Your task to perform on an android device: Open settings Image 0: 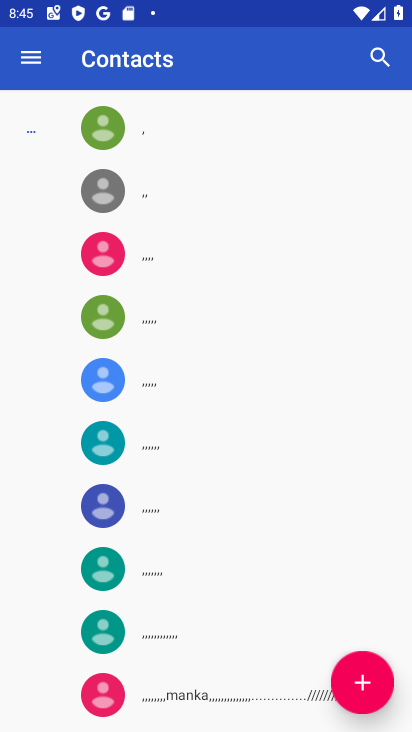
Step 0: press home button
Your task to perform on an android device: Open settings Image 1: 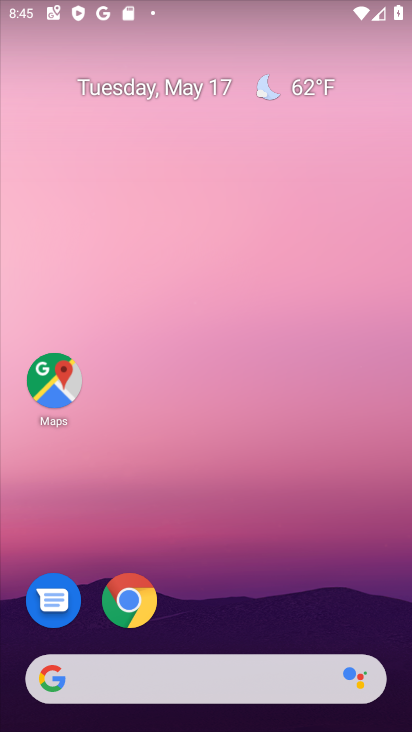
Step 1: drag from (217, 724) to (191, 152)
Your task to perform on an android device: Open settings Image 2: 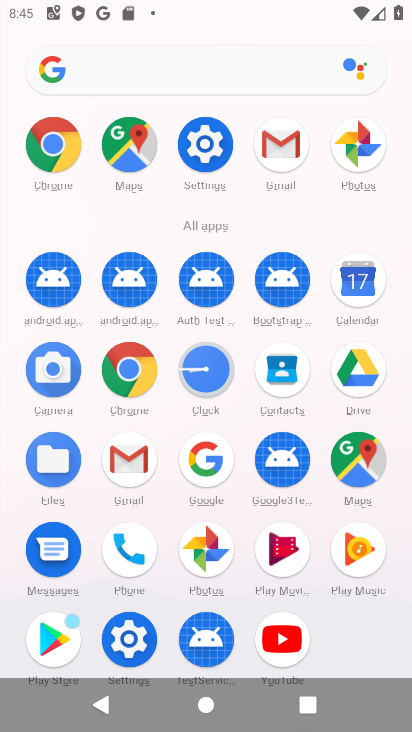
Step 2: click (211, 154)
Your task to perform on an android device: Open settings Image 3: 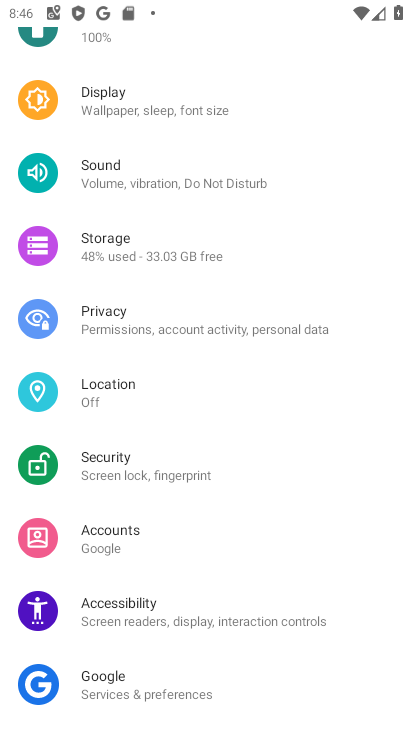
Step 3: task complete